Your task to perform on an android device: set an alarm Image 0: 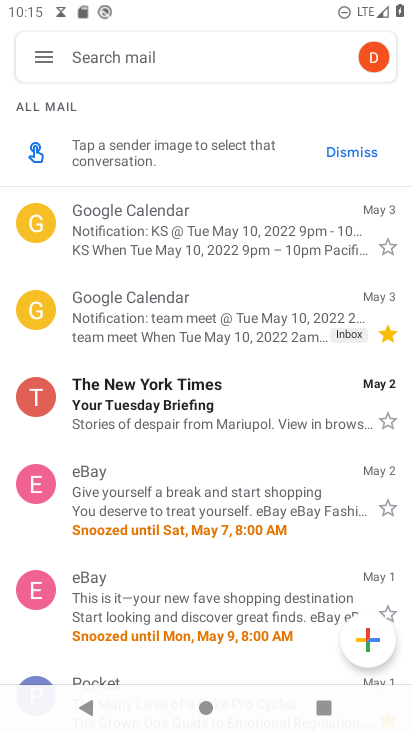
Step 0: press home button
Your task to perform on an android device: set an alarm Image 1: 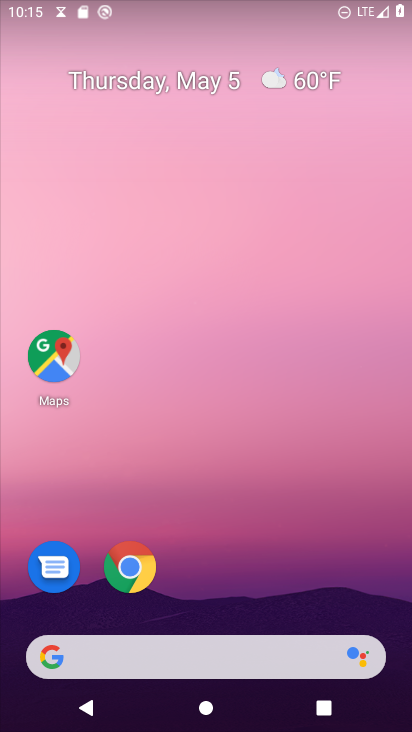
Step 1: drag from (208, 730) to (208, 211)
Your task to perform on an android device: set an alarm Image 2: 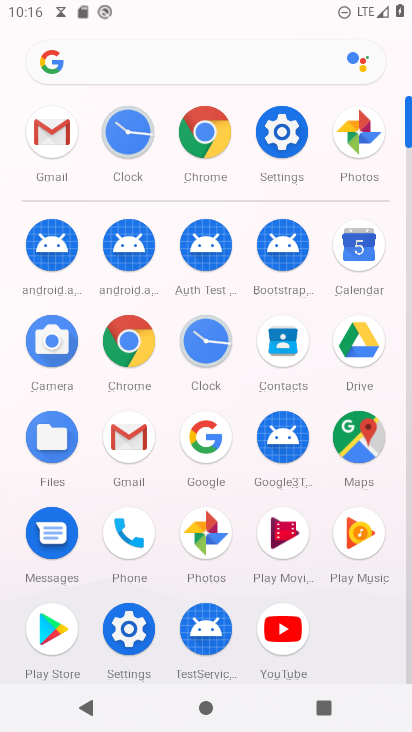
Step 2: click (202, 350)
Your task to perform on an android device: set an alarm Image 3: 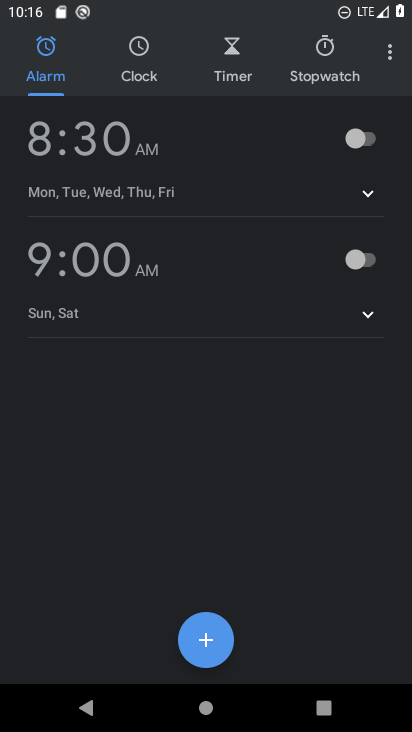
Step 3: click (204, 635)
Your task to perform on an android device: set an alarm Image 4: 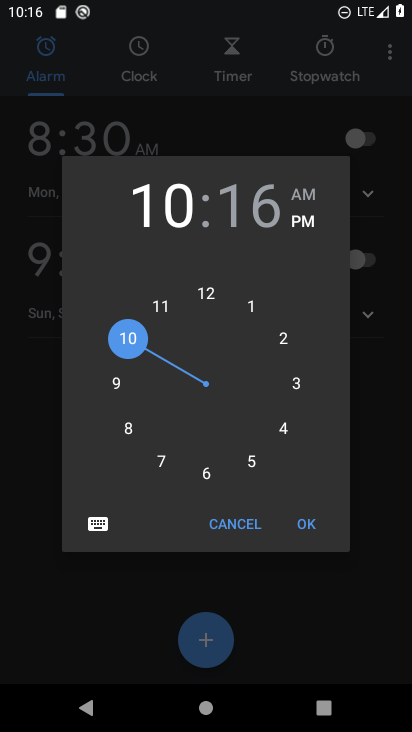
Step 4: click (249, 301)
Your task to perform on an android device: set an alarm Image 5: 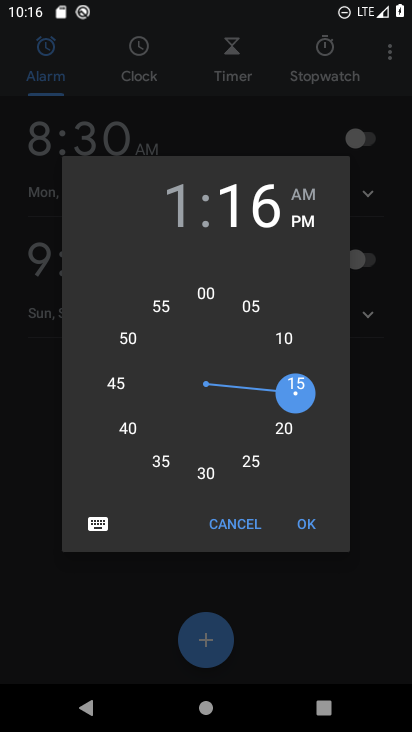
Step 5: click (306, 520)
Your task to perform on an android device: set an alarm Image 6: 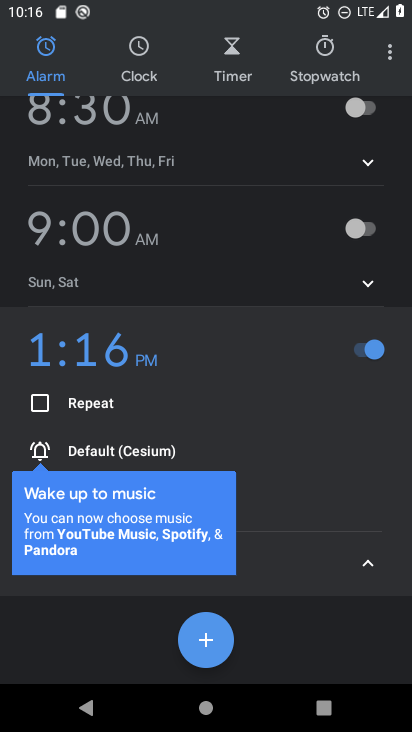
Step 6: task complete